Your task to perform on an android device: check out phone information Image 0: 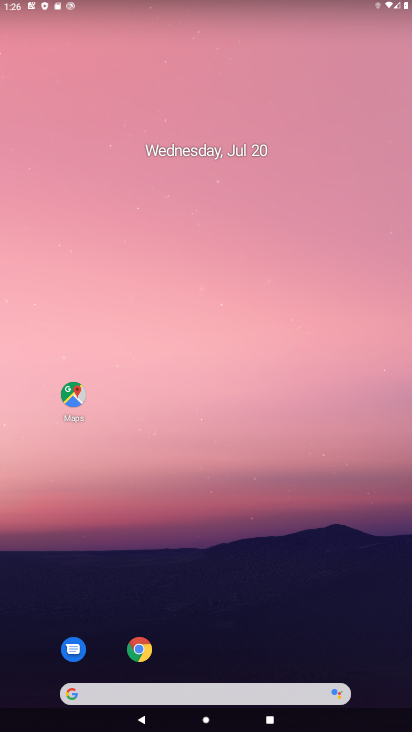
Step 0: press home button
Your task to perform on an android device: check out phone information Image 1: 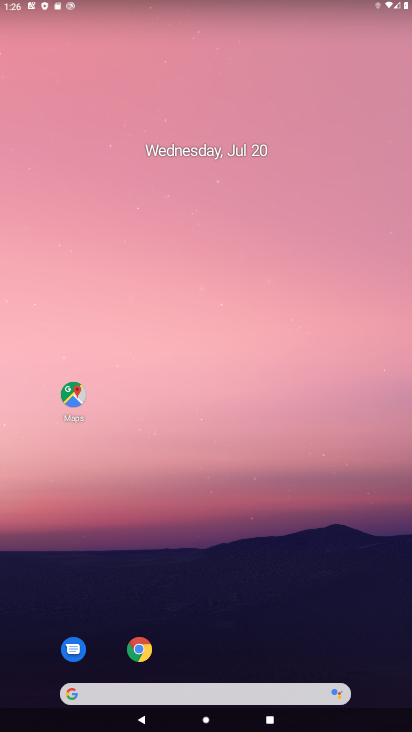
Step 1: drag from (341, 631) to (256, 247)
Your task to perform on an android device: check out phone information Image 2: 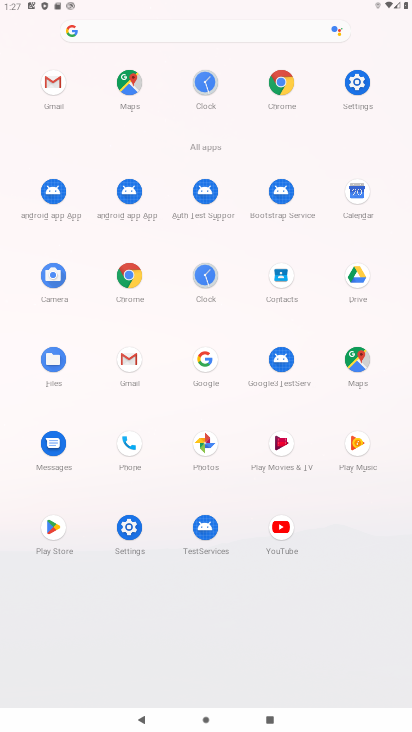
Step 2: click (131, 453)
Your task to perform on an android device: check out phone information Image 3: 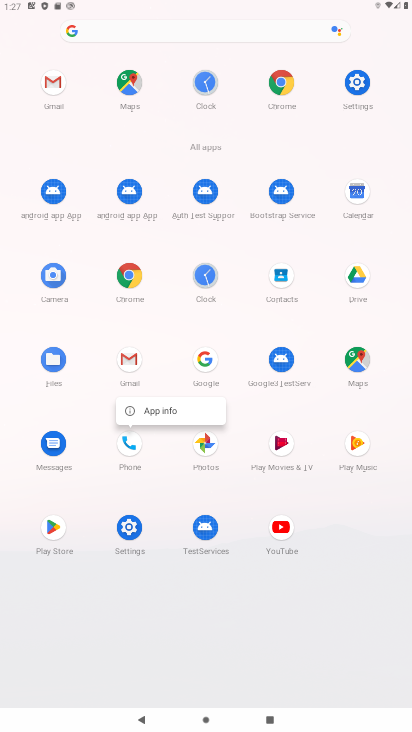
Step 3: click (195, 404)
Your task to perform on an android device: check out phone information Image 4: 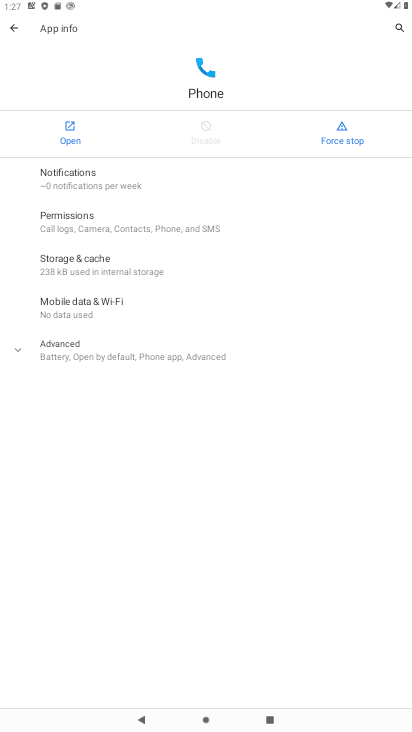
Step 4: task complete